Your task to perform on an android device: turn off javascript in the chrome app Image 0: 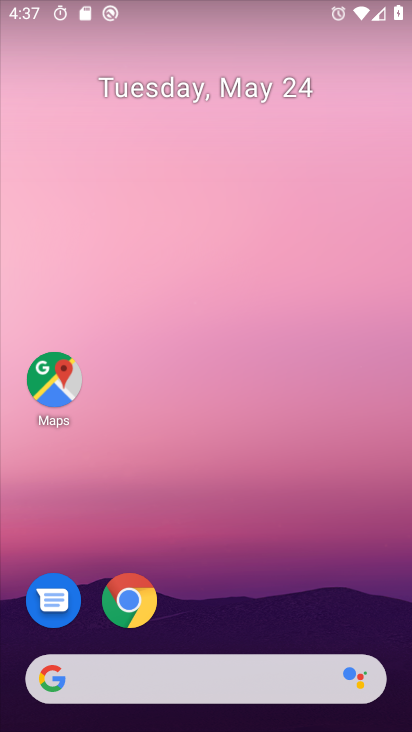
Step 0: drag from (244, 671) to (301, 61)
Your task to perform on an android device: turn off javascript in the chrome app Image 1: 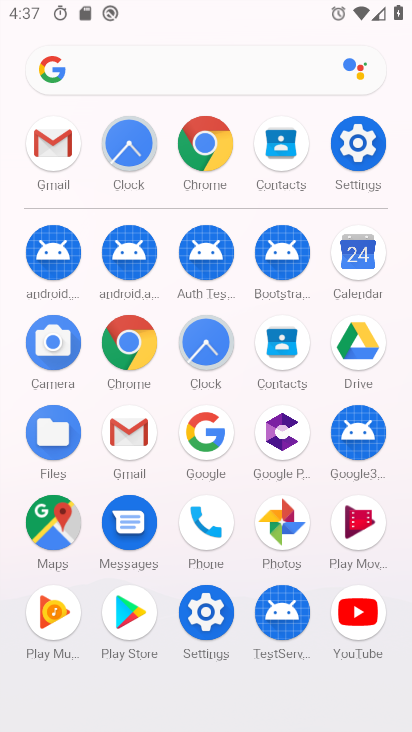
Step 1: click (282, 346)
Your task to perform on an android device: turn off javascript in the chrome app Image 2: 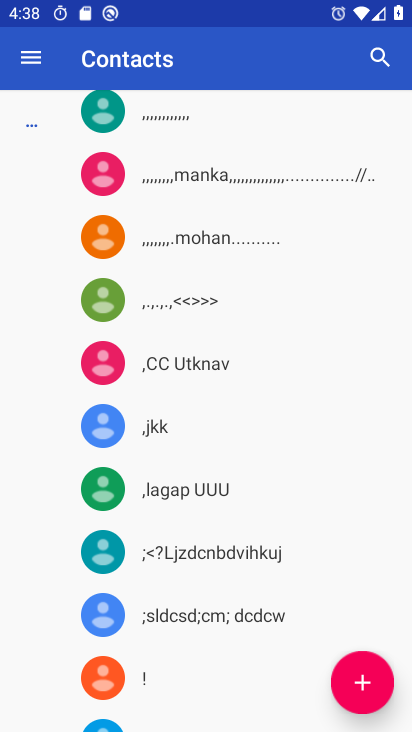
Step 2: press home button
Your task to perform on an android device: turn off javascript in the chrome app Image 3: 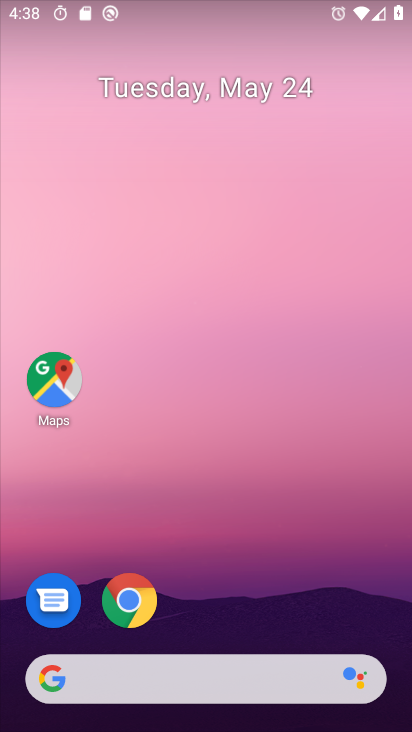
Step 3: drag from (304, 632) to (350, 20)
Your task to perform on an android device: turn off javascript in the chrome app Image 4: 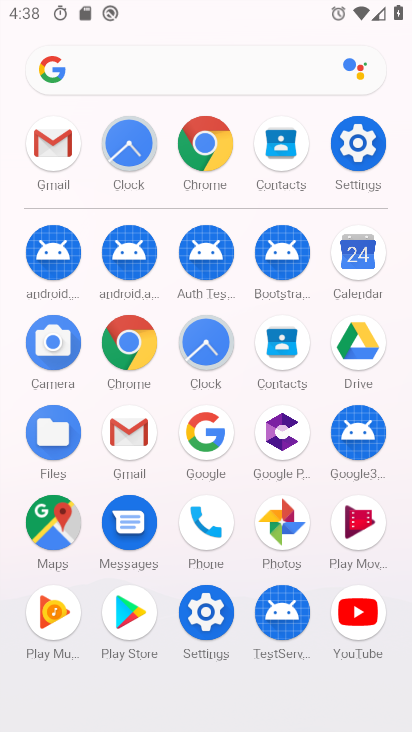
Step 4: click (125, 347)
Your task to perform on an android device: turn off javascript in the chrome app Image 5: 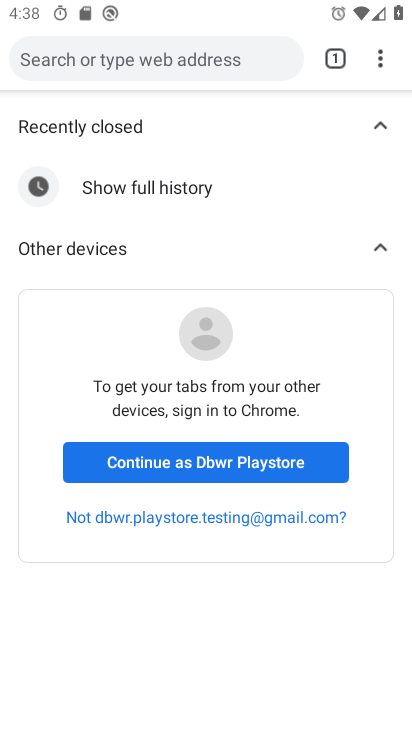
Step 5: drag from (384, 60) to (160, 461)
Your task to perform on an android device: turn off javascript in the chrome app Image 6: 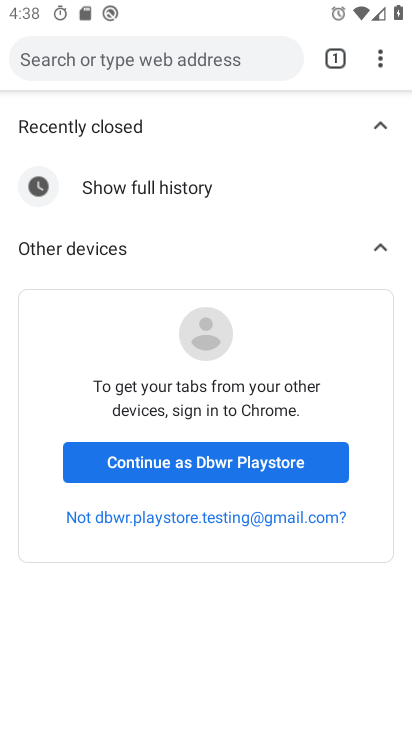
Step 6: click (150, 485)
Your task to perform on an android device: turn off javascript in the chrome app Image 7: 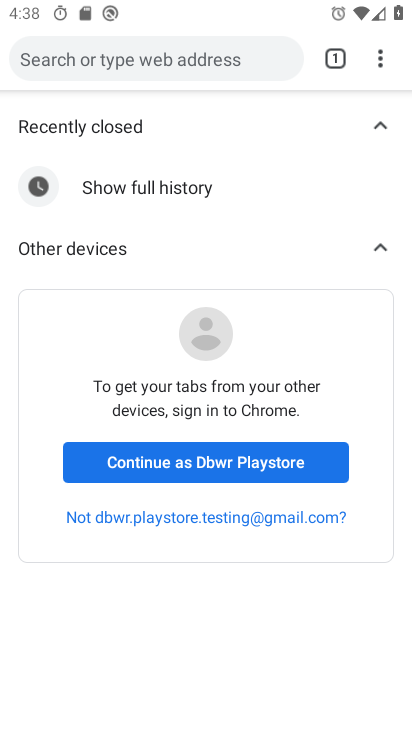
Step 7: press back button
Your task to perform on an android device: turn off javascript in the chrome app Image 8: 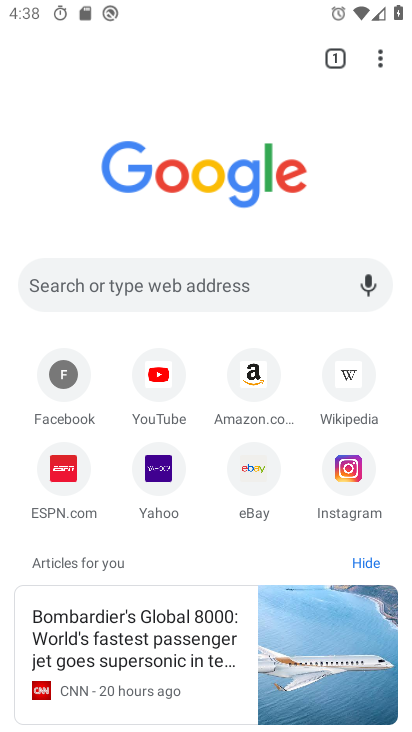
Step 8: drag from (374, 60) to (166, 492)
Your task to perform on an android device: turn off javascript in the chrome app Image 9: 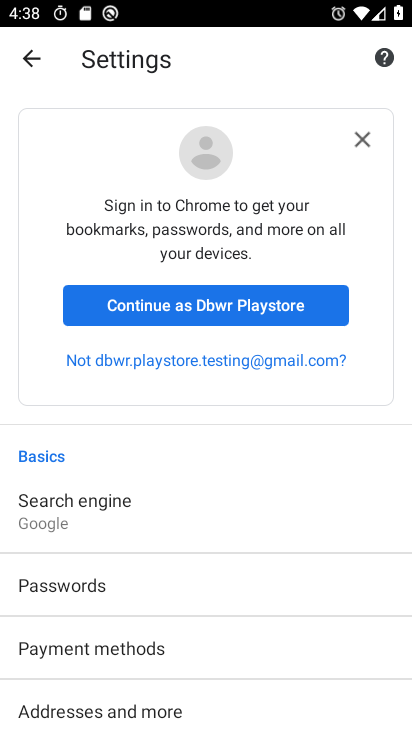
Step 9: drag from (214, 641) to (278, 3)
Your task to perform on an android device: turn off javascript in the chrome app Image 10: 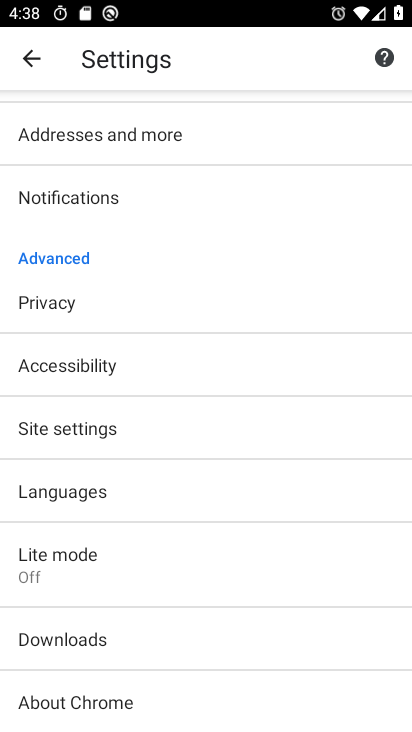
Step 10: click (129, 416)
Your task to perform on an android device: turn off javascript in the chrome app Image 11: 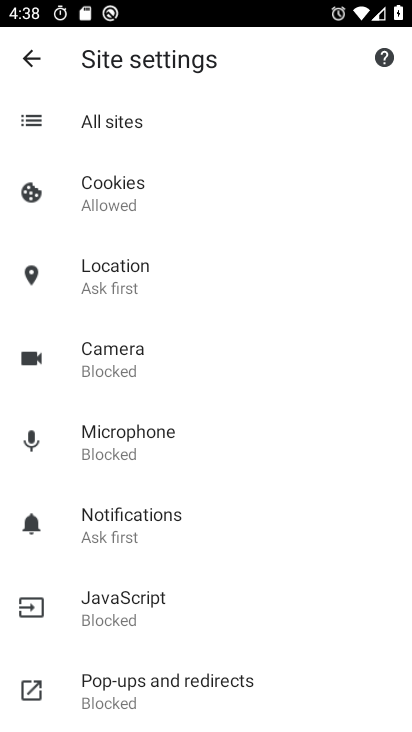
Step 11: click (174, 601)
Your task to perform on an android device: turn off javascript in the chrome app Image 12: 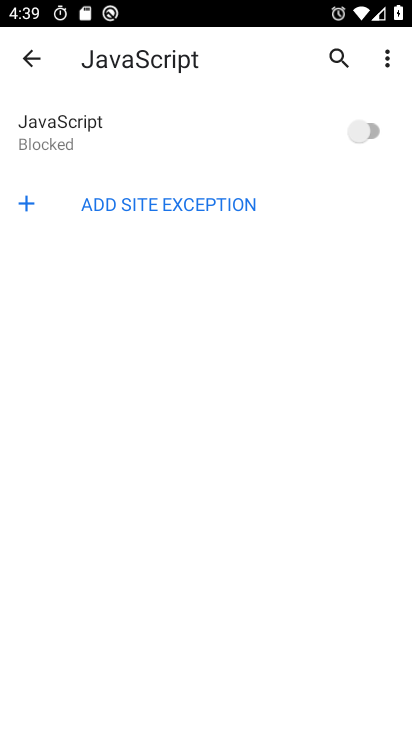
Step 12: click (156, 593)
Your task to perform on an android device: turn off javascript in the chrome app Image 13: 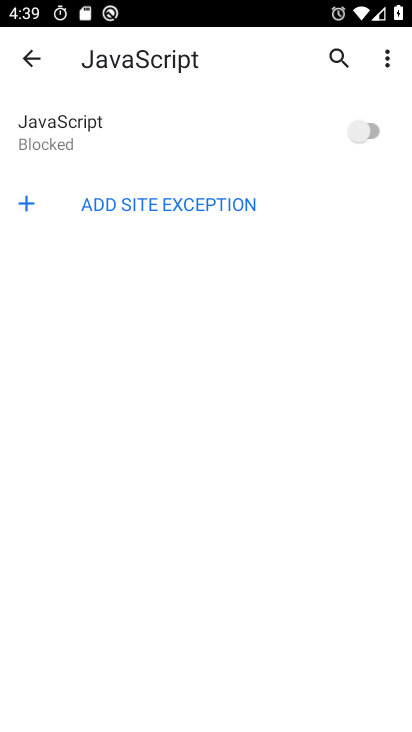
Step 13: task complete